Your task to perform on an android device: turn on data saver in the chrome app Image 0: 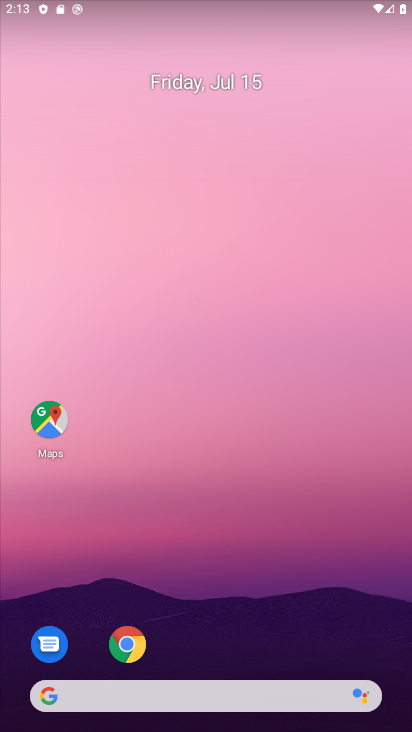
Step 0: drag from (325, 690) to (293, 35)
Your task to perform on an android device: turn on data saver in the chrome app Image 1: 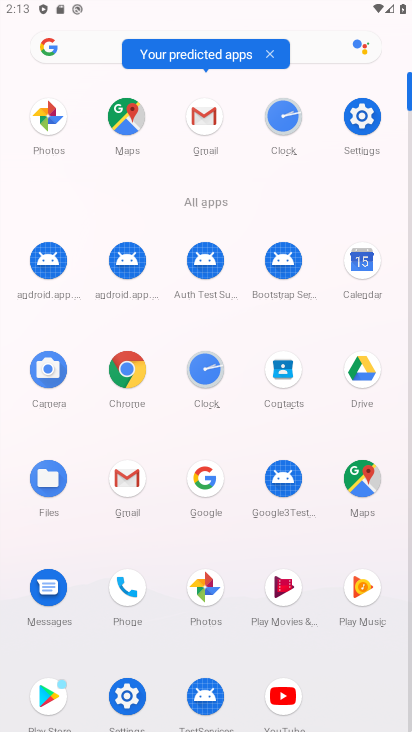
Step 1: click (127, 376)
Your task to perform on an android device: turn on data saver in the chrome app Image 2: 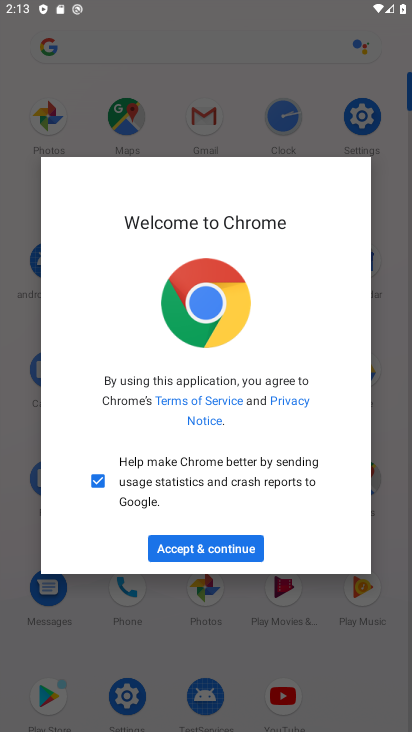
Step 2: click (265, 550)
Your task to perform on an android device: turn on data saver in the chrome app Image 3: 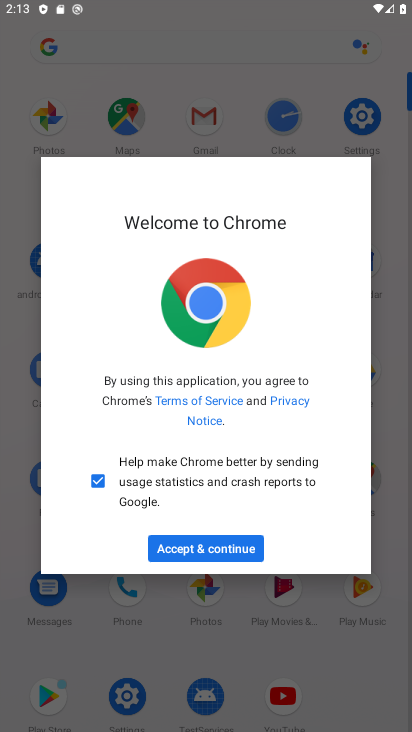
Step 3: click (260, 549)
Your task to perform on an android device: turn on data saver in the chrome app Image 4: 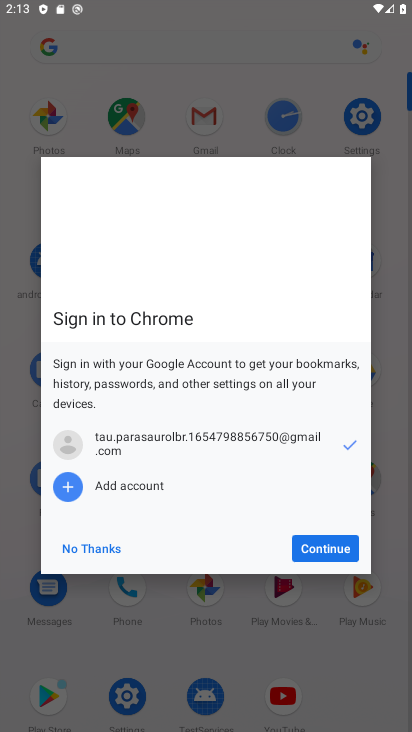
Step 4: click (106, 545)
Your task to perform on an android device: turn on data saver in the chrome app Image 5: 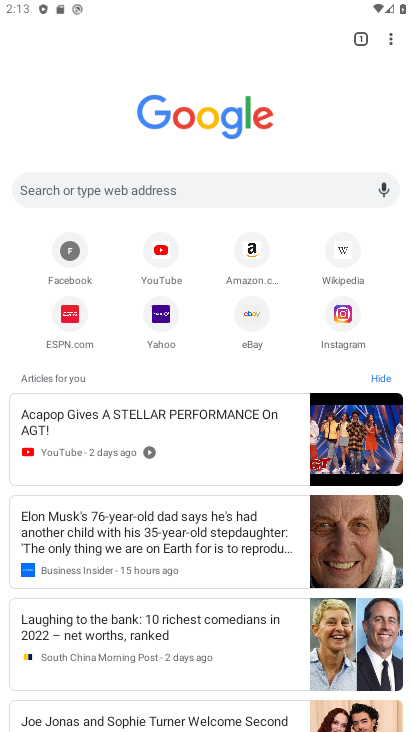
Step 5: click (385, 35)
Your task to perform on an android device: turn on data saver in the chrome app Image 6: 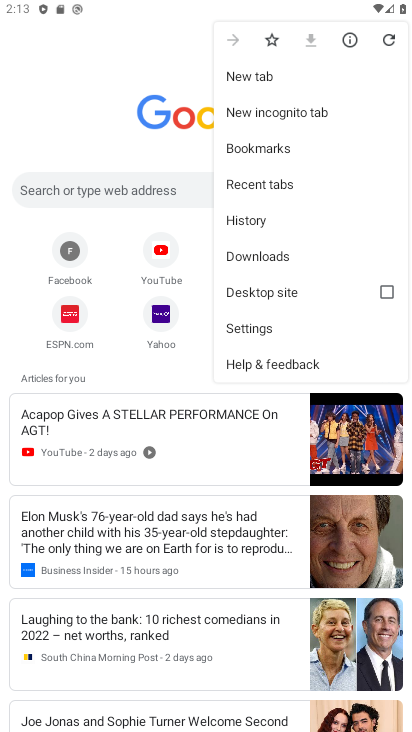
Step 6: click (298, 320)
Your task to perform on an android device: turn on data saver in the chrome app Image 7: 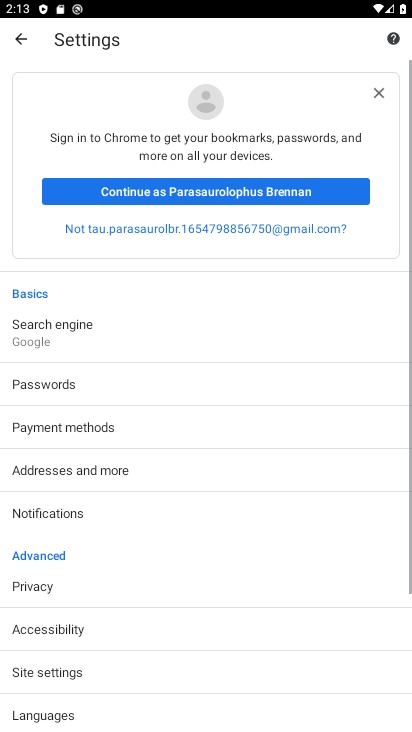
Step 7: drag from (135, 703) to (171, 310)
Your task to perform on an android device: turn on data saver in the chrome app Image 8: 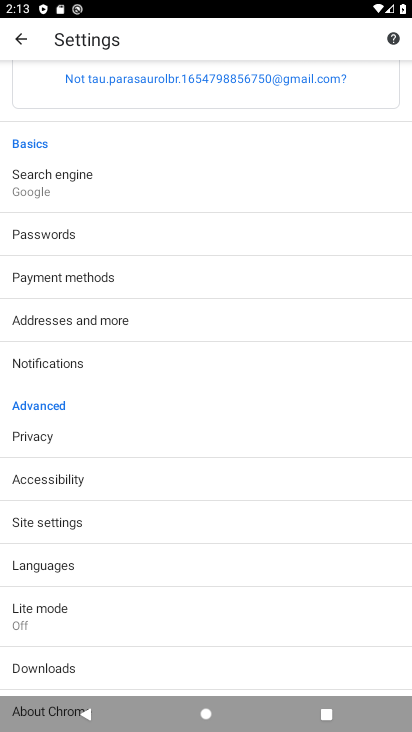
Step 8: click (67, 615)
Your task to perform on an android device: turn on data saver in the chrome app Image 9: 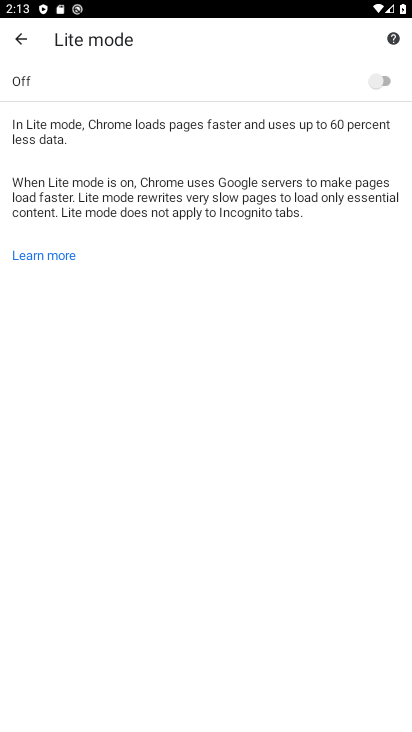
Step 9: click (388, 79)
Your task to perform on an android device: turn on data saver in the chrome app Image 10: 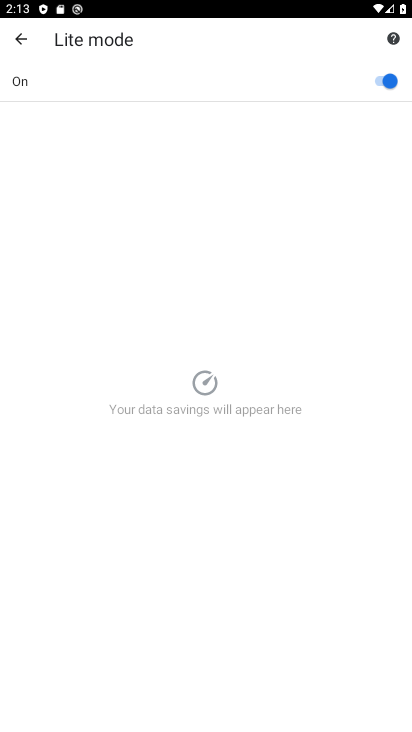
Step 10: task complete